Your task to perform on an android device: Show me a list of home improvement items on the Home Depot website. Image 0: 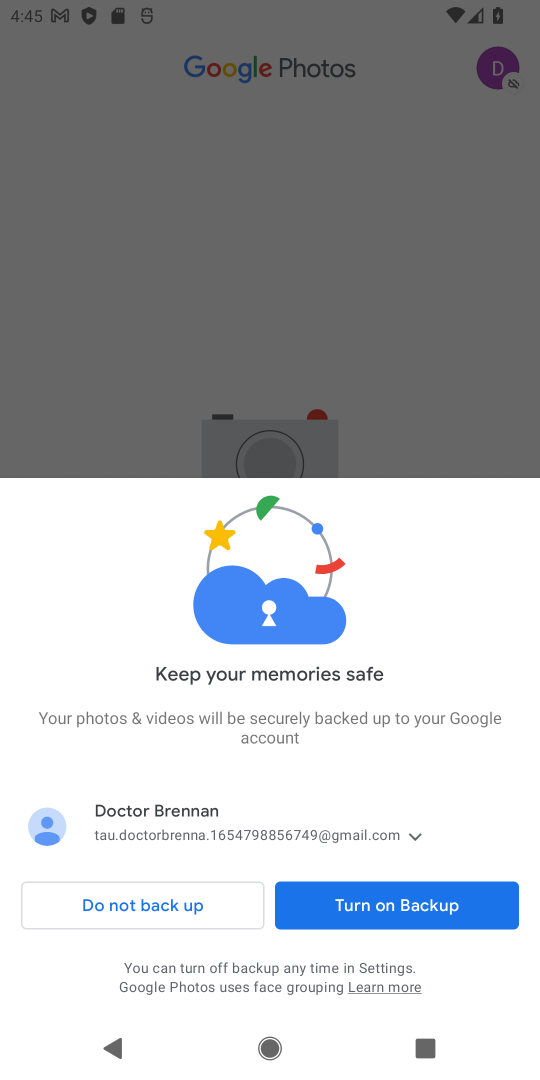
Step 0: click (182, 910)
Your task to perform on an android device: Show me a list of home improvement items on the Home Depot website. Image 1: 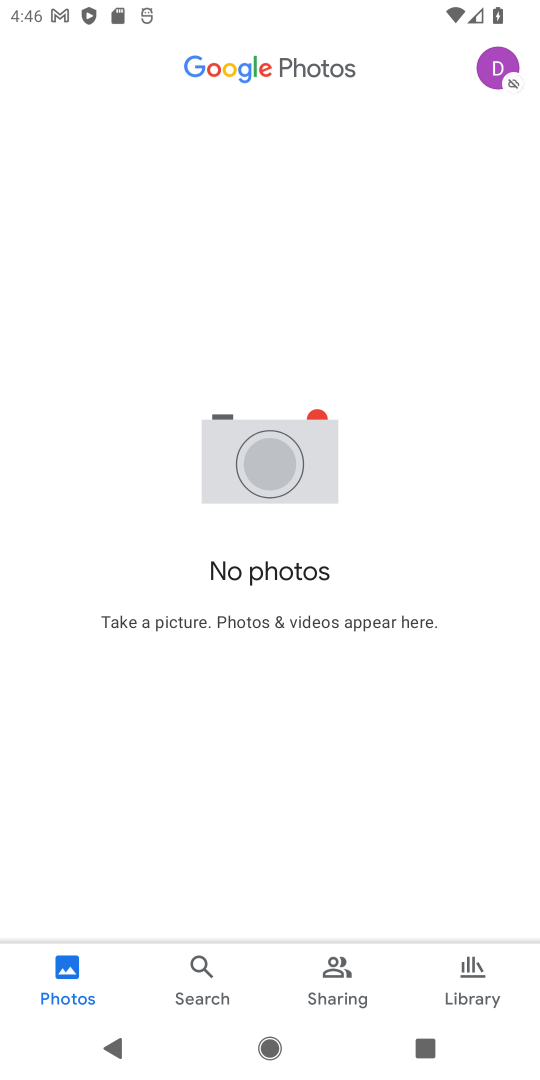
Step 1: drag from (288, 872) to (372, 394)
Your task to perform on an android device: Show me a list of home improvement items on the Home Depot website. Image 2: 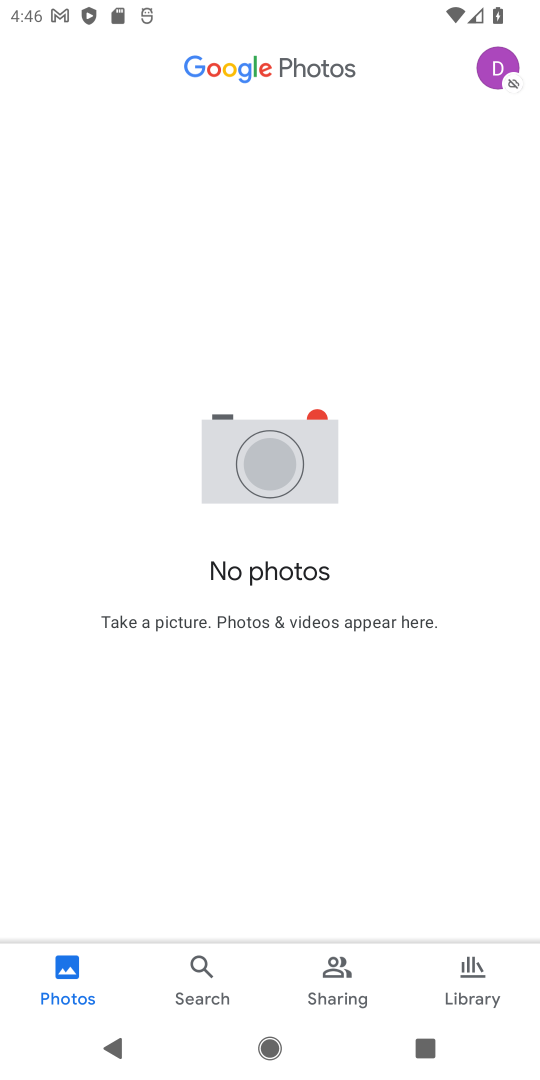
Step 2: click (198, 959)
Your task to perform on an android device: Show me a list of home improvement items on the Home Depot website. Image 3: 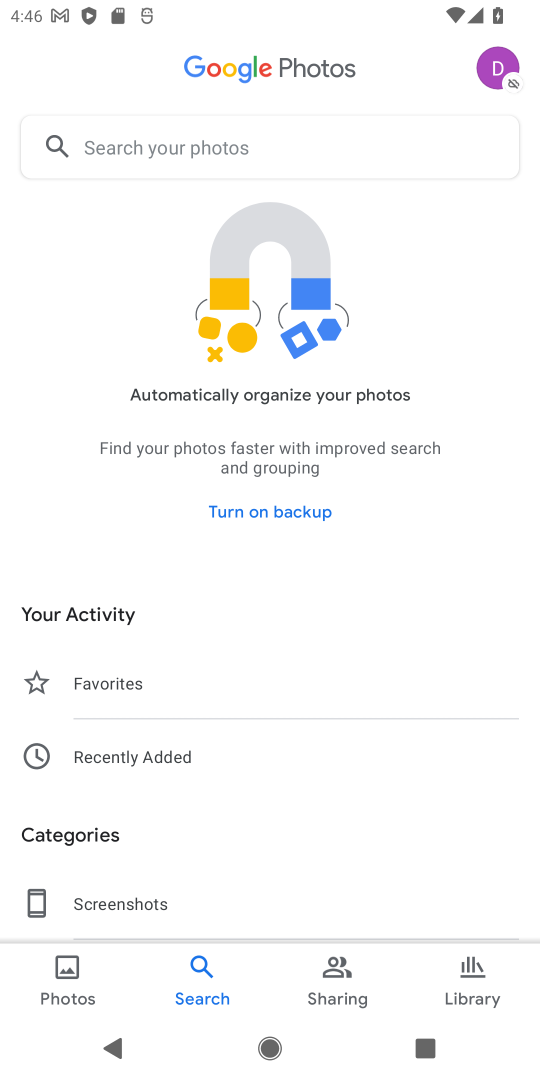
Step 3: click (174, 153)
Your task to perform on an android device: Show me a list of home improvement items on the Home Depot website. Image 4: 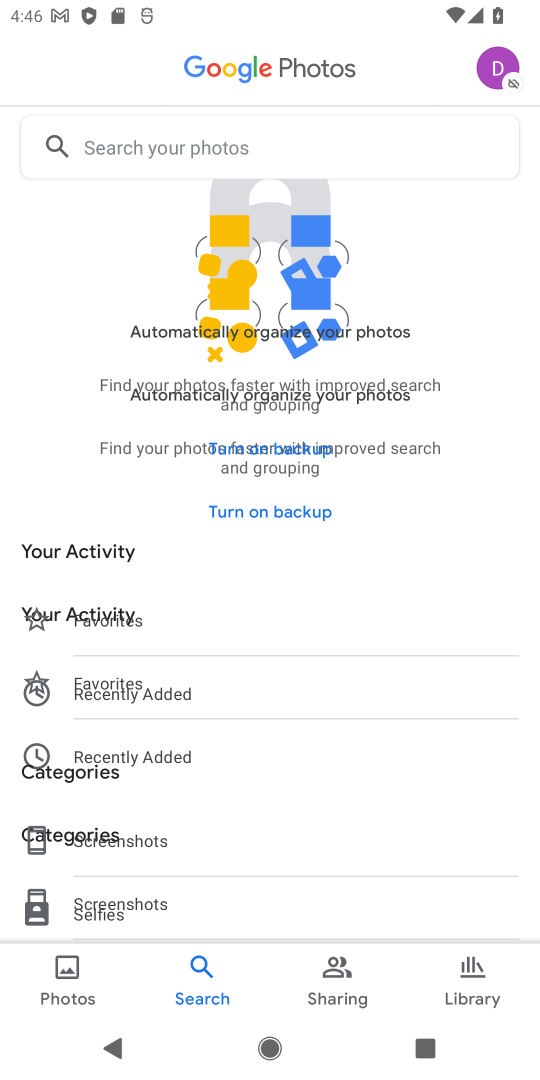
Step 4: press home button
Your task to perform on an android device: Show me a list of home improvement items on the Home Depot website. Image 5: 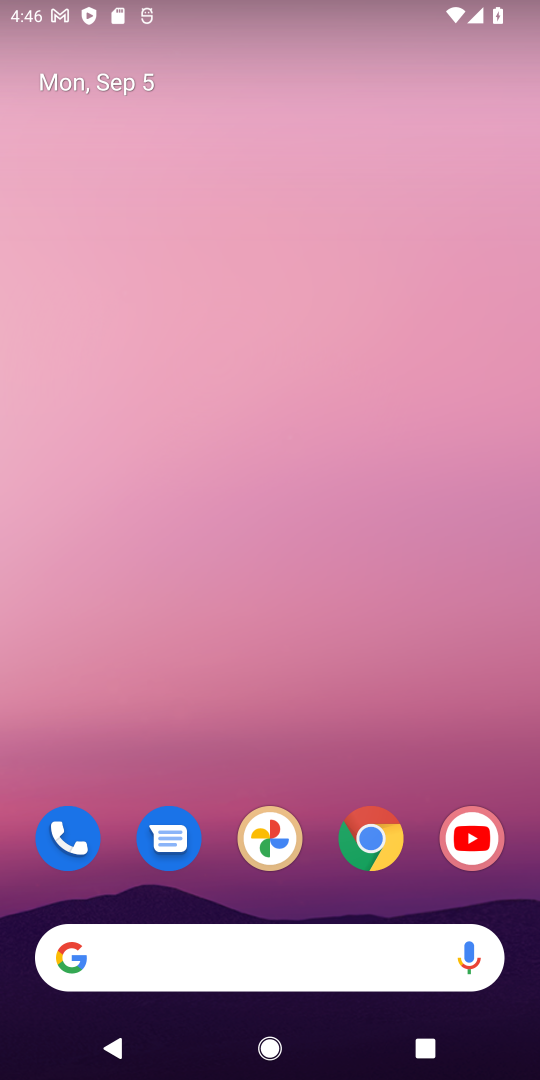
Step 5: drag from (308, 880) to (479, 13)
Your task to perform on an android device: Show me a list of home improvement items on the Home Depot website. Image 6: 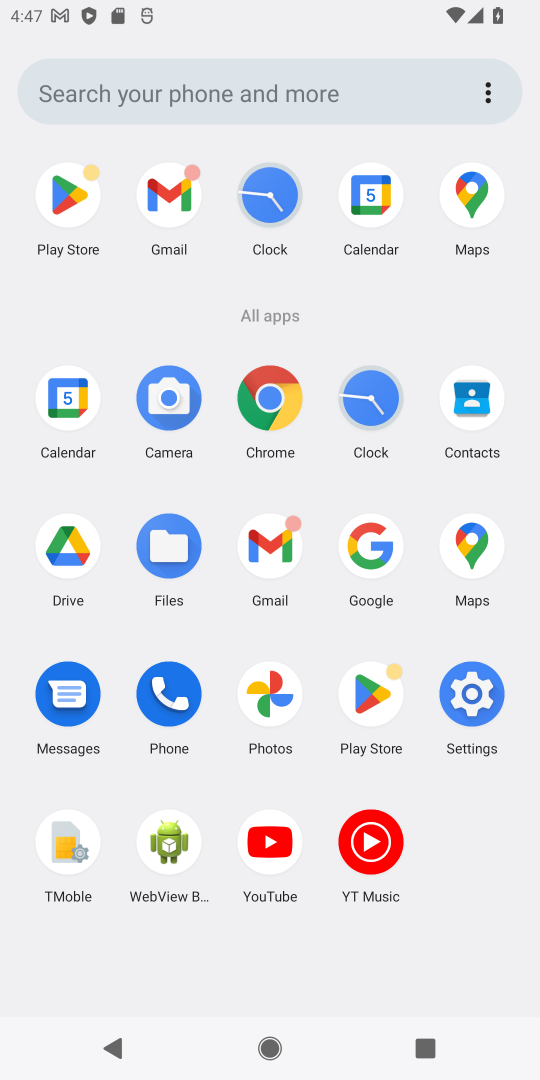
Step 6: click (269, 399)
Your task to perform on an android device: Show me a list of home improvement items on the Home Depot website. Image 7: 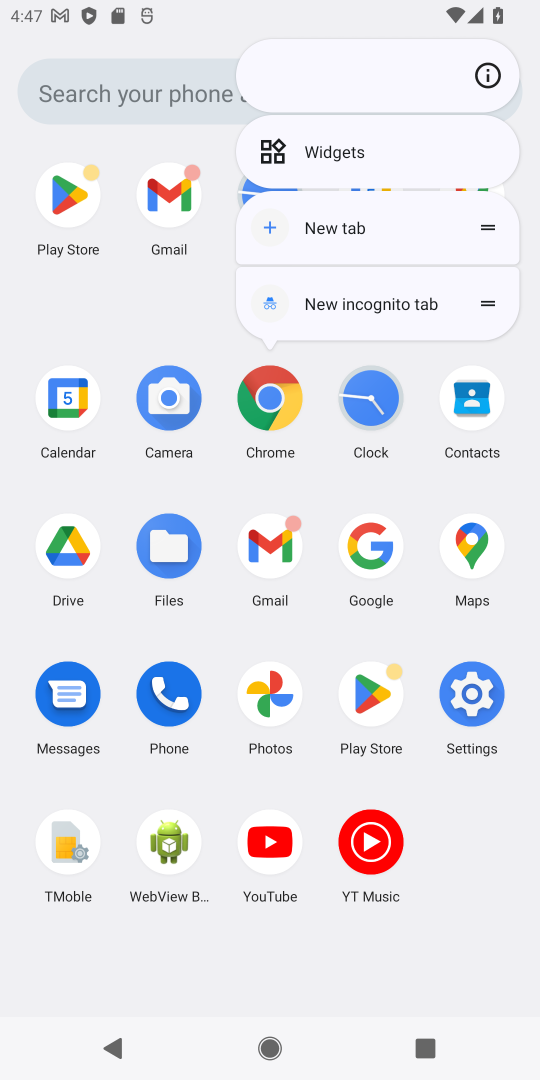
Step 7: click (254, 396)
Your task to perform on an android device: Show me a list of home improvement items on the Home Depot website. Image 8: 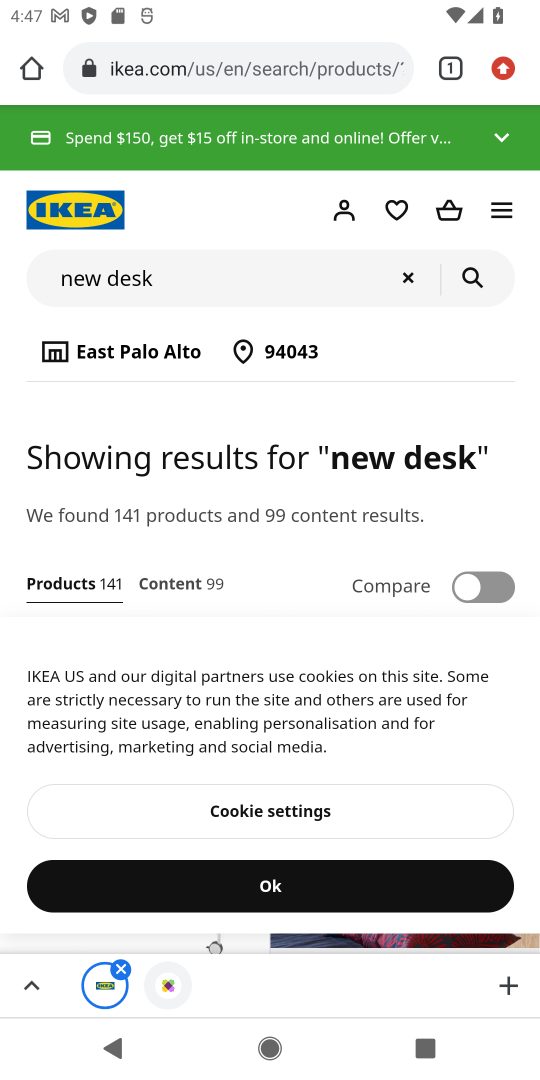
Step 8: click (146, 69)
Your task to perform on an android device: Show me a list of home improvement items on the Home Depot website. Image 9: 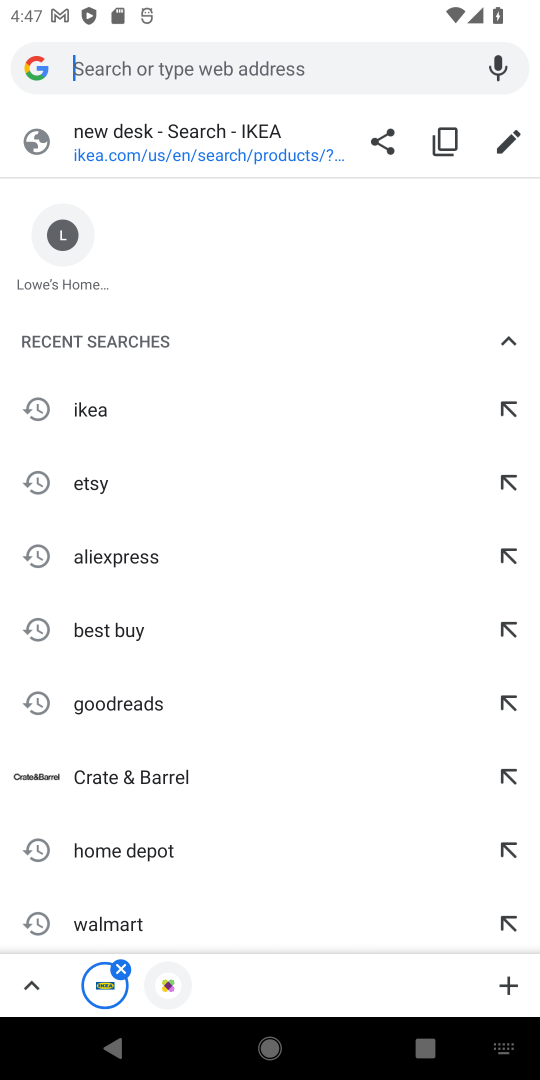
Step 9: type " Home Depot website."
Your task to perform on an android device: Show me a list of home improvement items on the Home Depot website. Image 10: 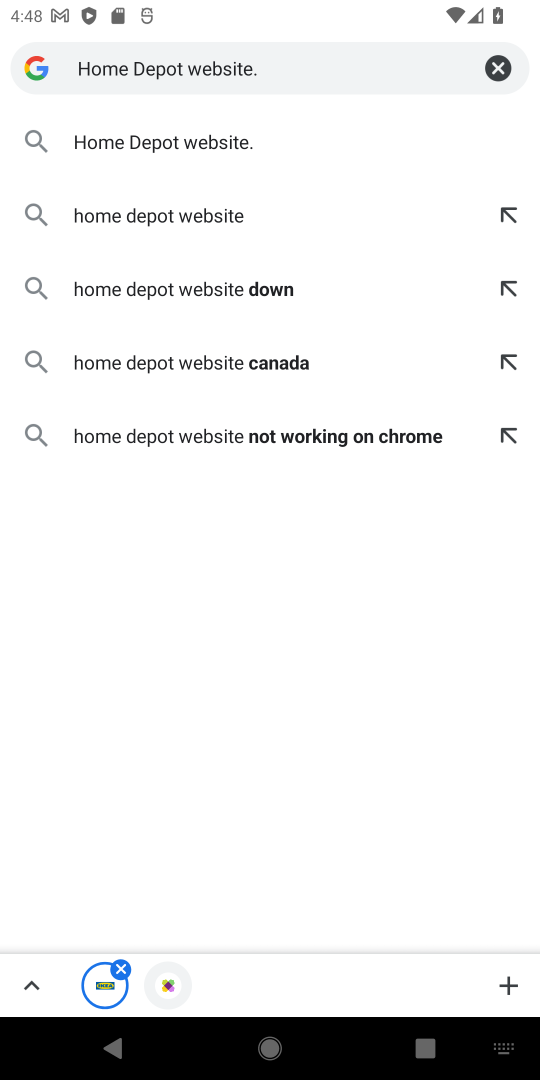
Step 10: click (145, 141)
Your task to perform on an android device: Show me a list of home improvement items on the Home Depot website. Image 11: 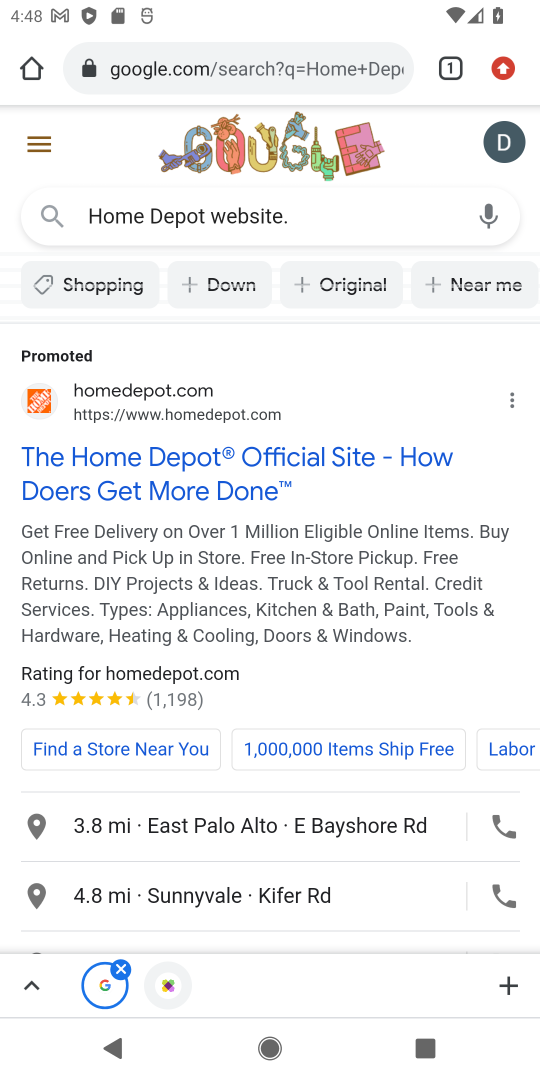
Step 11: click (143, 480)
Your task to perform on an android device: Show me a list of home improvement items on the Home Depot website. Image 12: 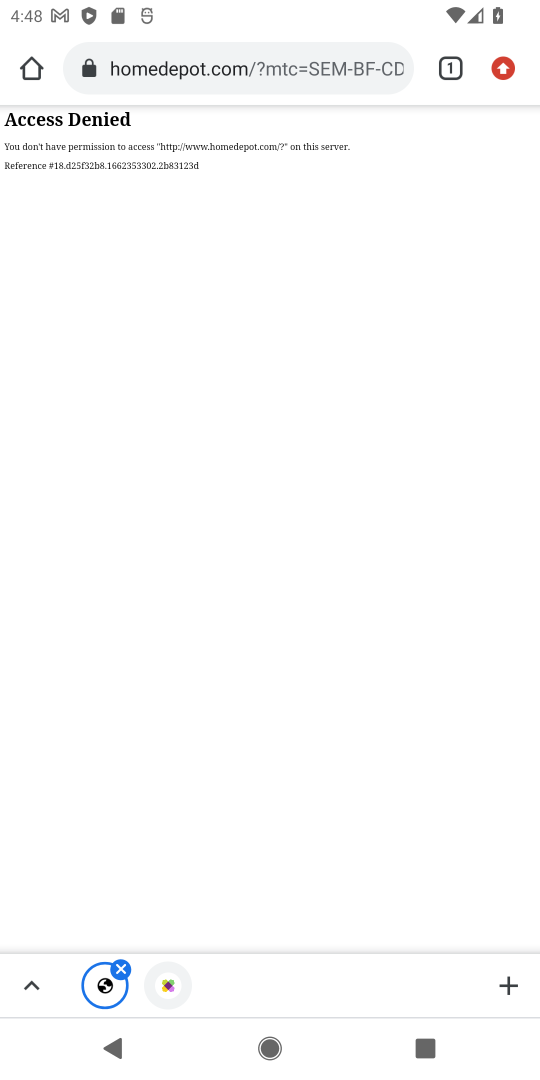
Step 12: task complete